Your task to perform on an android device: set the timer Image 0: 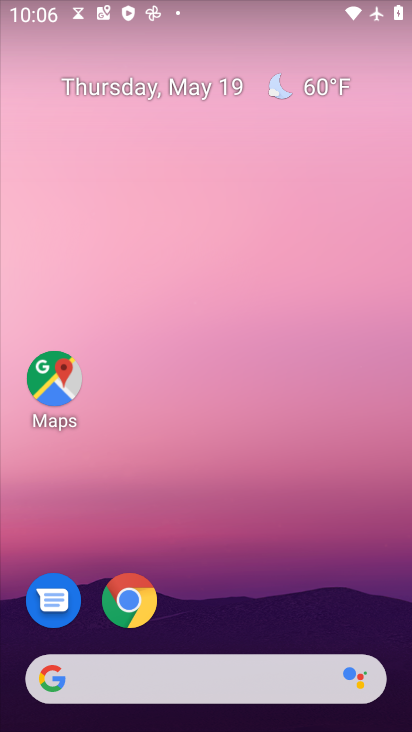
Step 0: drag from (249, 452) to (227, 7)
Your task to perform on an android device: set the timer Image 1: 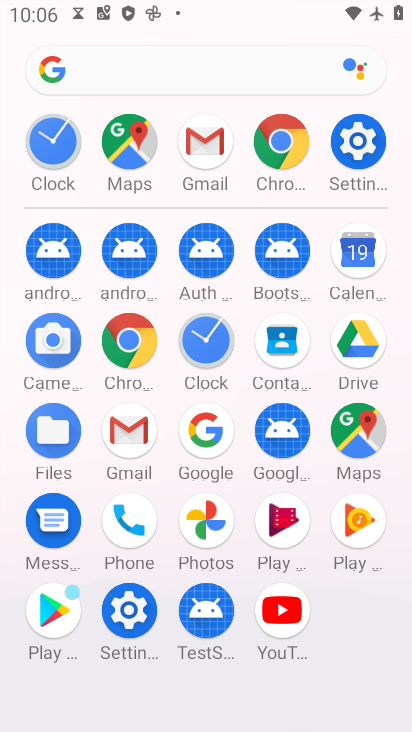
Step 1: click (204, 333)
Your task to perform on an android device: set the timer Image 2: 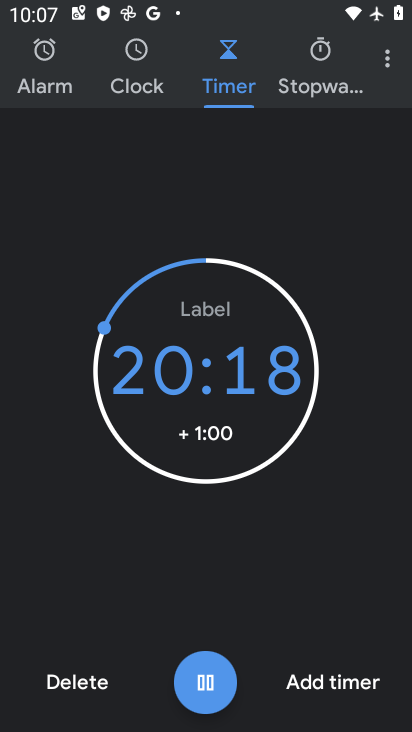
Step 2: click (332, 680)
Your task to perform on an android device: set the timer Image 3: 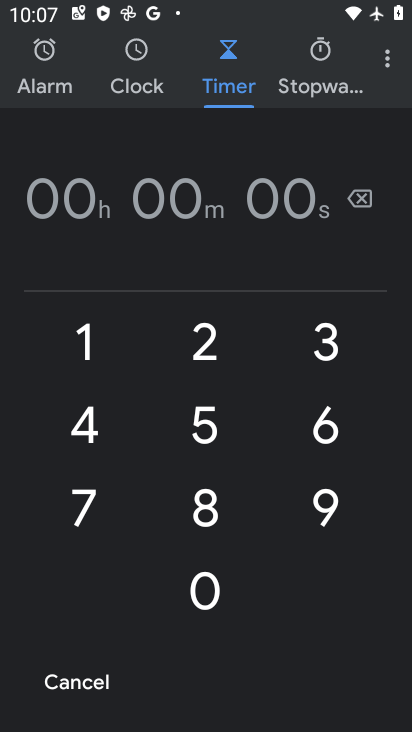
Step 3: click (211, 418)
Your task to perform on an android device: set the timer Image 4: 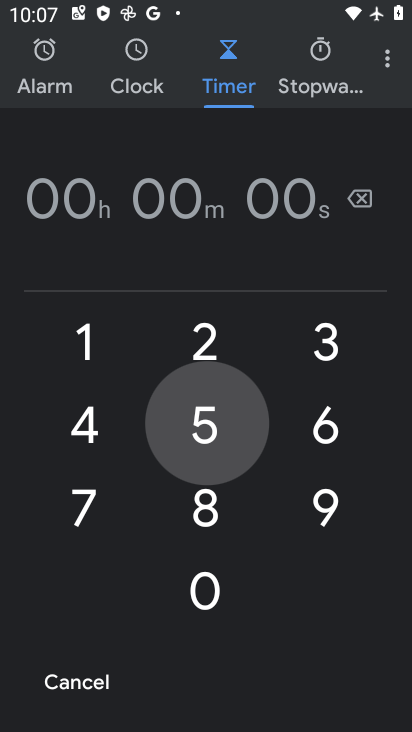
Step 4: click (201, 311)
Your task to perform on an android device: set the timer Image 5: 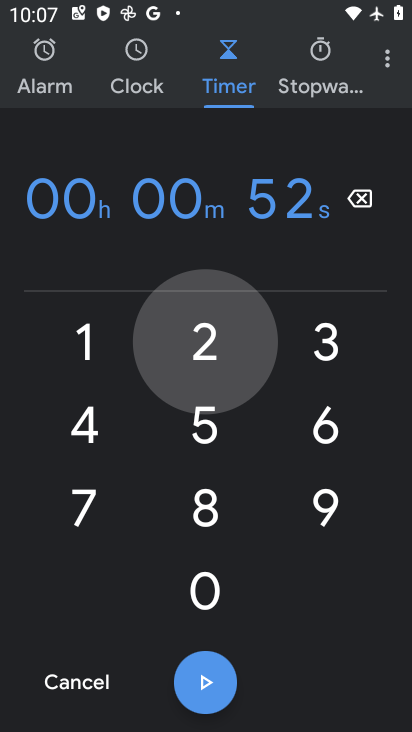
Step 5: click (98, 431)
Your task to perform on an android device: set the timer Image 6: 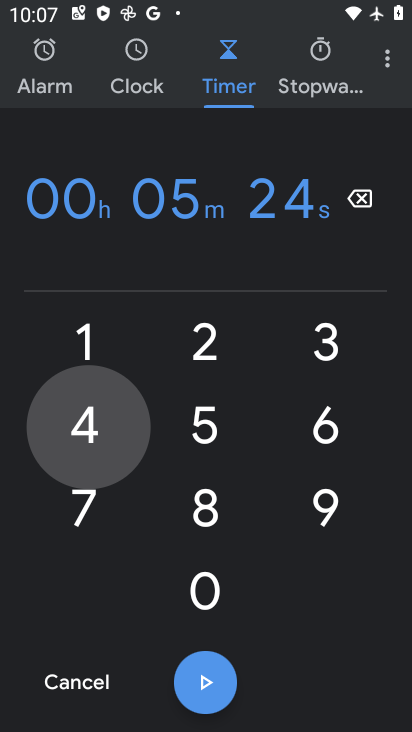
Step 6: click (74, 494)
Your task to perform on an android device: set the timer Image 7: 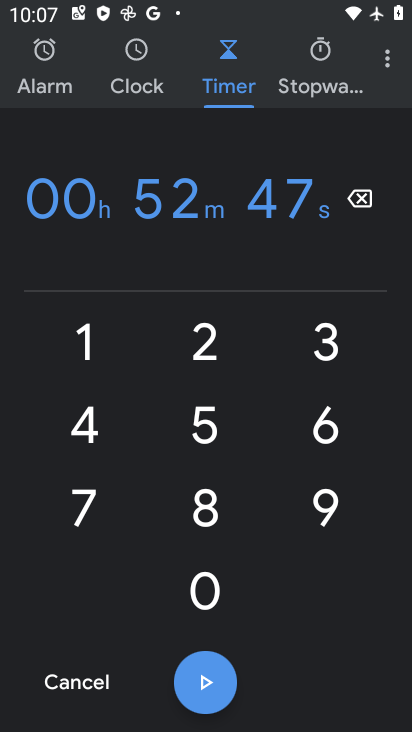
Step 7: click (199, 664)
Your task to perform on an android device: set the timer Image 8: 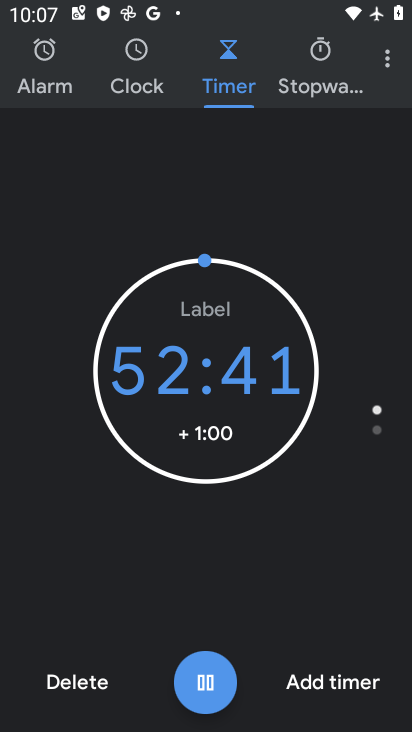
Step 8: task complete